Your task to perform on an android device: Open location settings Image 0: 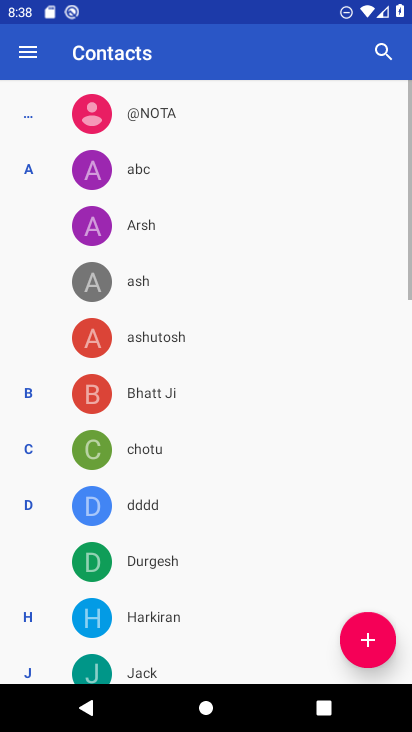
Step 0: press home button
Your task to perform on an android device: Open location settings Image 1: 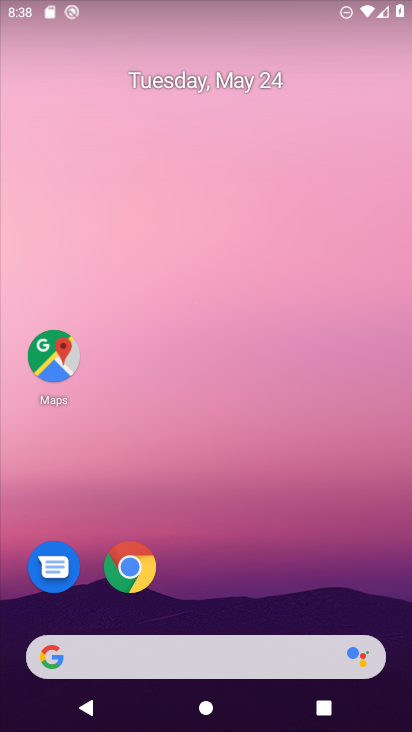
Step 1: drag from (126, 652) to (352, 100)
Your task to perform on an android device: Open location settings Image 2: 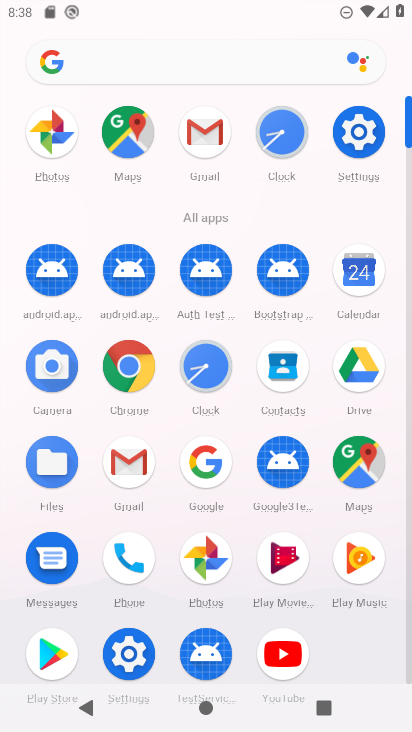
Step 2: click (353, 143)
Your task to perform on an android device: Open location settings Image 3: 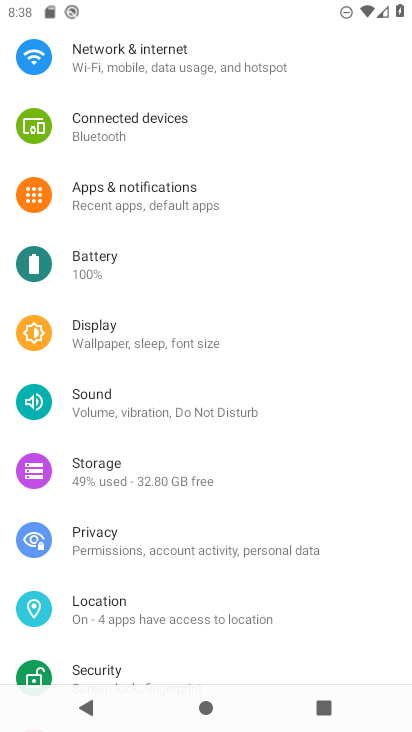
Step 3: click (136, 617)
Your task to perform on an android device: Open location settings Image 4: 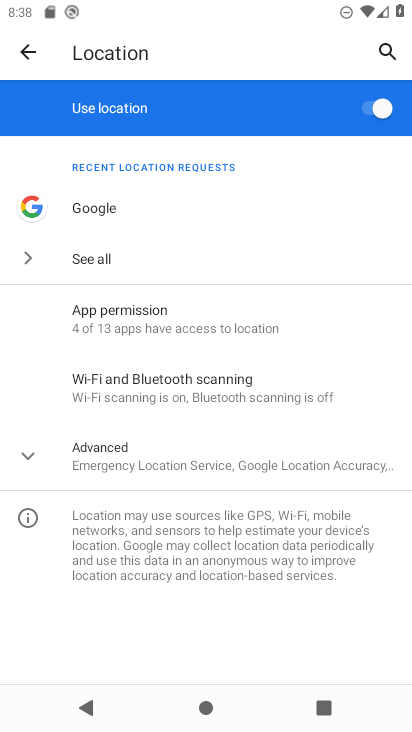
Step 4: click (74, 463)
Your task to perform on an android device: Open location settings Image 5: 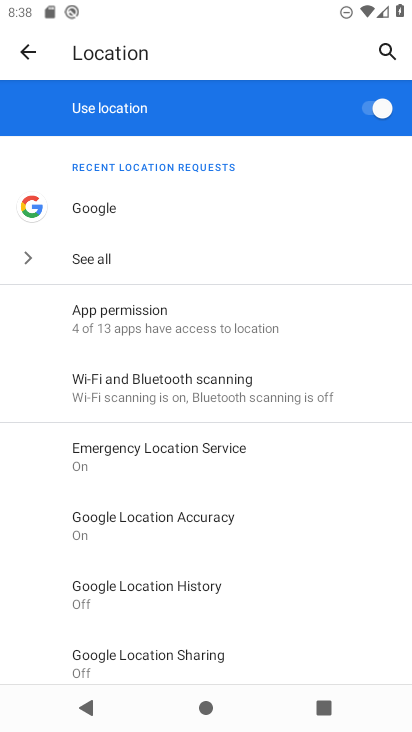
Step 5: task complete